Your task to perform on an android device: uninstall "Venmo" Image 0: 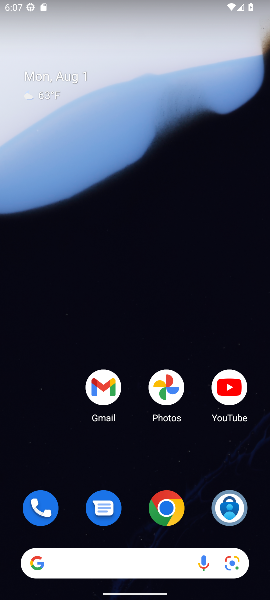
Step 0: drag from (140, 531) to (124, 29)
Your task to perform on an android device: uninstall "Venmo" Image 1: 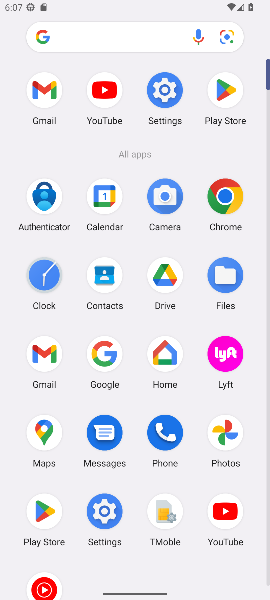
Step 1: click (45, 509)
Your task to perform on an android device: uninstall "Venmo" Image 2: 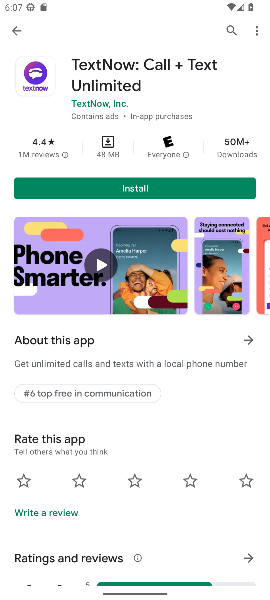
Step 2: click (13, 32)
Your task to perform on an android device: uninstall "Venmo" Image 3: 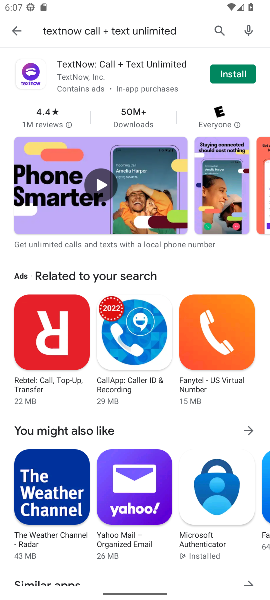
Step 3: click (66, 21)
Your task to perform on an android device: uninstall "Venmo" Image 4: 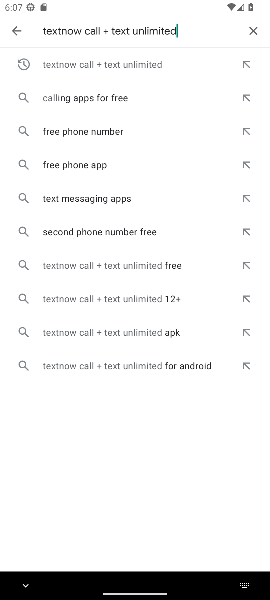
Step 4: click (249, 29)
Your task to perform on an android device: uninstall "Venmo" Image 5: 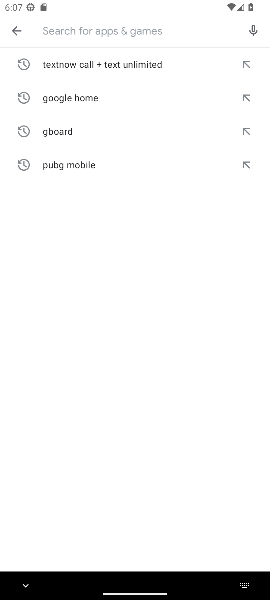
Step 5: type "Venmo"
Your task to perform on an android device: uninstall "Venmo" Image 6: 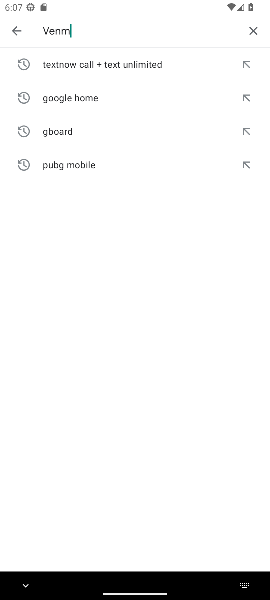
Step 6: type ""
Your task to perform on an android device: uninstall "Venmo" Image 7: 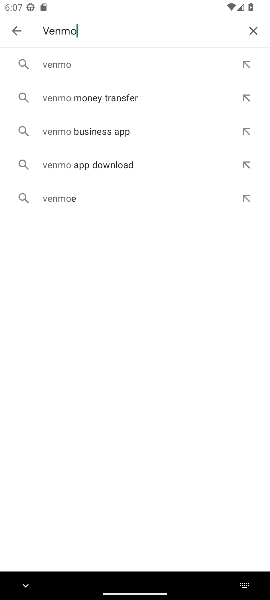
Step 7: click (67, 62)
Your task to perform on an android device: uninstall "Venmo" Image 8: 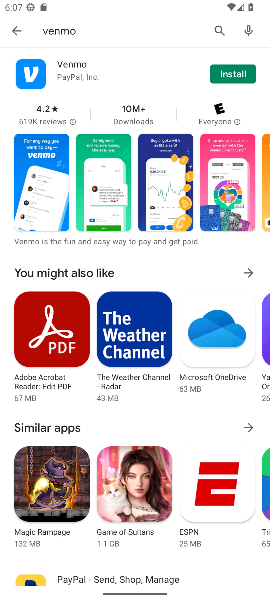
Step 8: click (56, 88)
Your task to perform on an android device: uninstall "Venmo" Image 9: 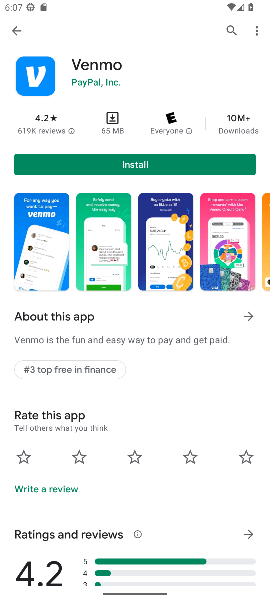
Step 9: task complete